Your task to perform on an android device: change timer sound Image 0: 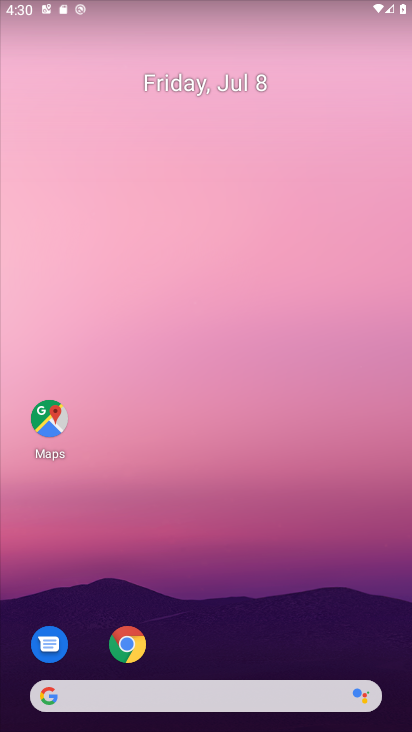
Step 0: drag from (348, 632) to (302, 126)
Your task to perform on an android device: change timer sound Image 1: 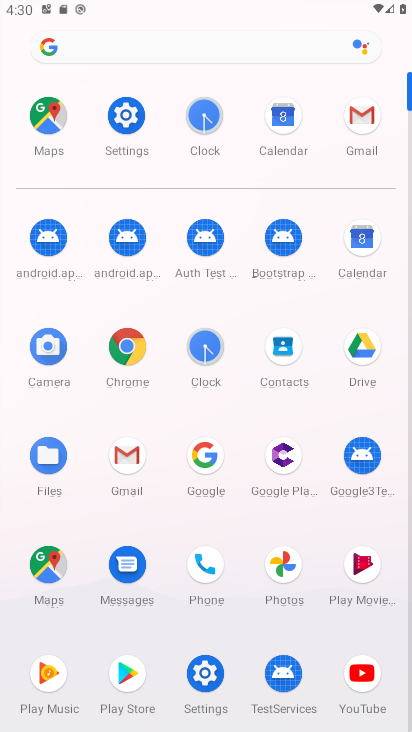
Step 1: click (203, 345)
Your task to perform on an android device: change timer sound Image 2: 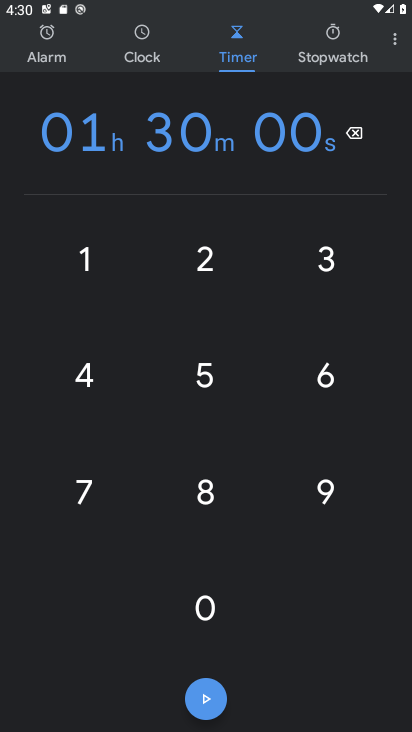
Step 2: click (397, 44)
Your task to perform on an android device: change timer sound Image 3: 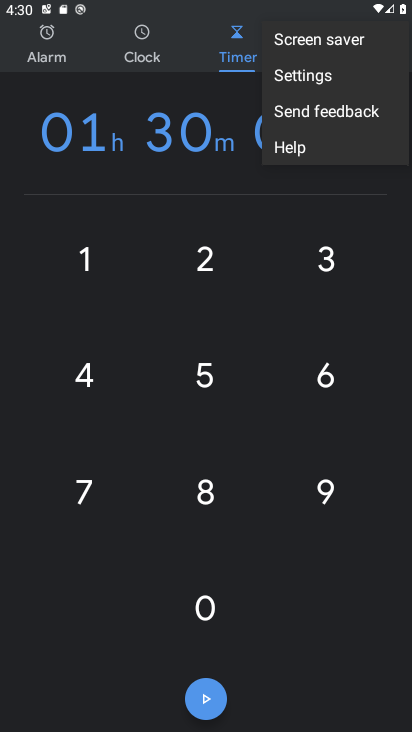
Step 3: click (297, 78)
Your task to perform on an android device: change timer sound Image 4: 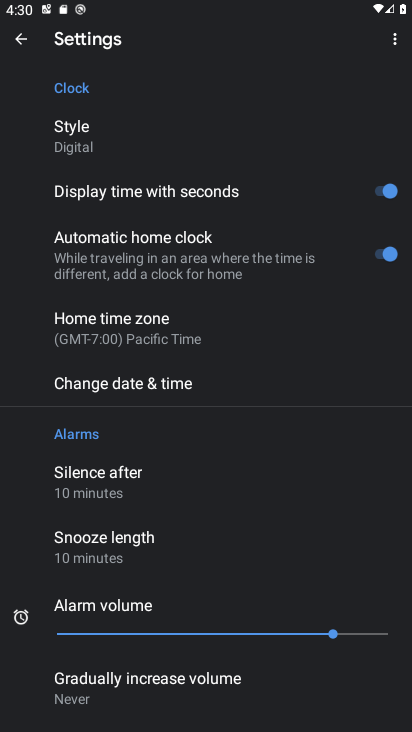
Step 4: drag from (251, 583) to (250, 244)
Your task to perform on an android device: change timer sound Image 5: 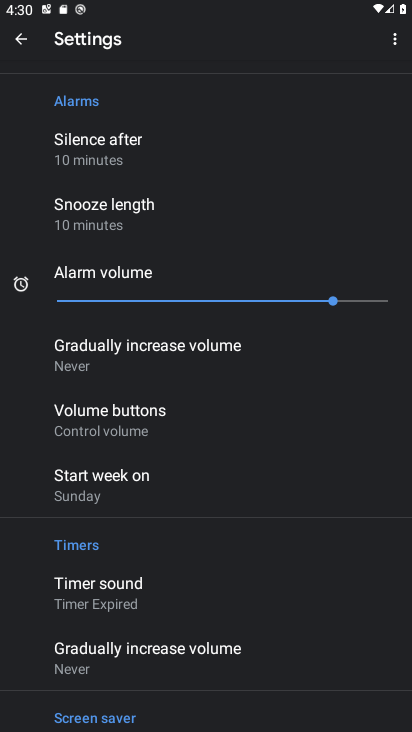
Step 5: click (102, 594)
Your task to perform on an android device: change timer sound Image 6: 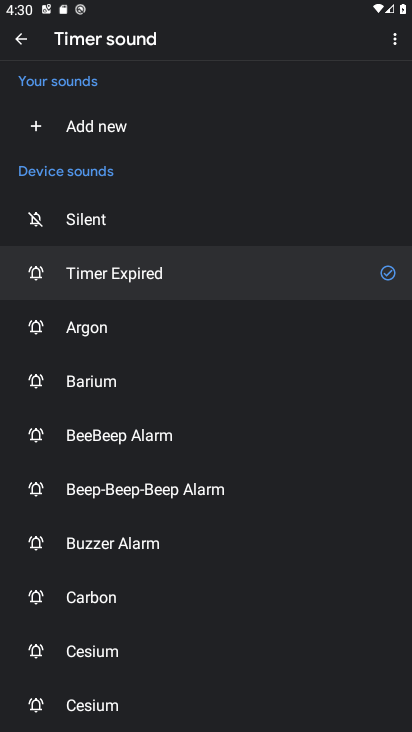
Step 6: drag from (239, 614) to (241, 409)
Your task to perform on an android device: change timer sound Image 7: 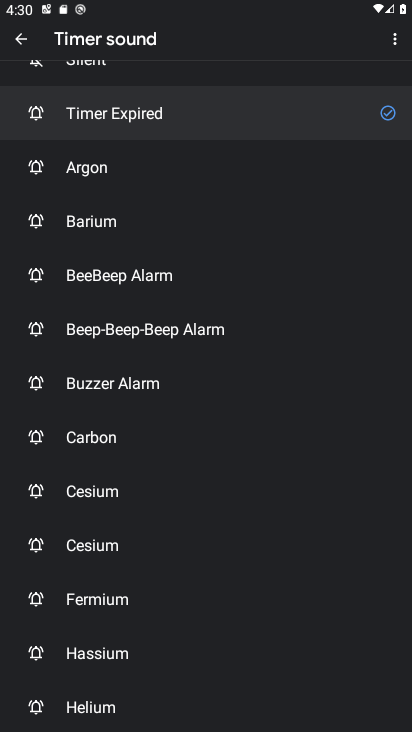
Step 7: click (85, 441)
Your task to perform on an android device: change timer sound Image 8: 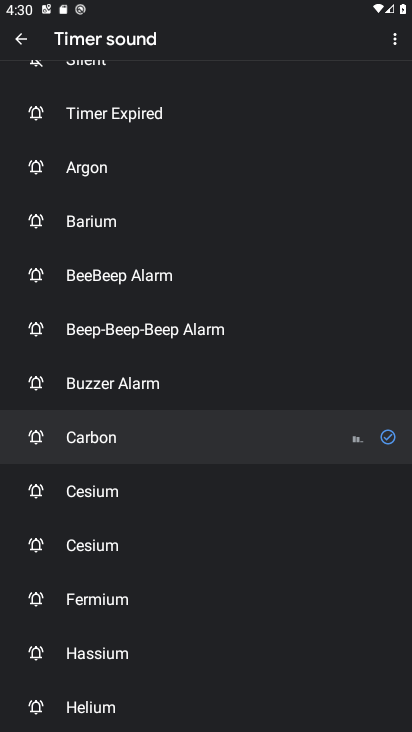
Step 8: task complete